Your task to perform on an android device: Go to accessibility settings Image 0: 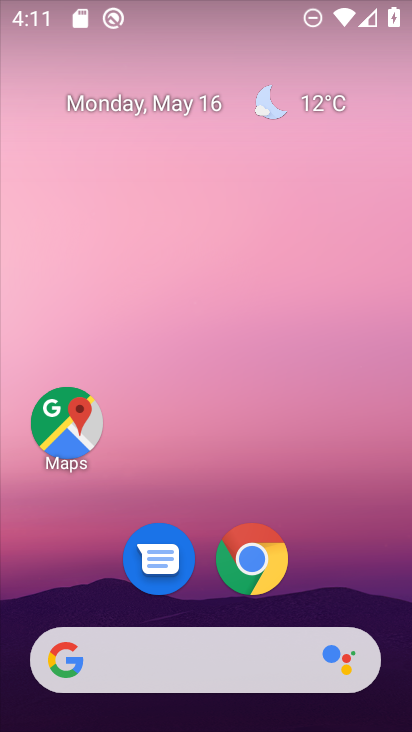
Step 0: drag from (351, 594) to (289, 89)
Your task to perform on an android device: Go to accessibility settings Image 1: 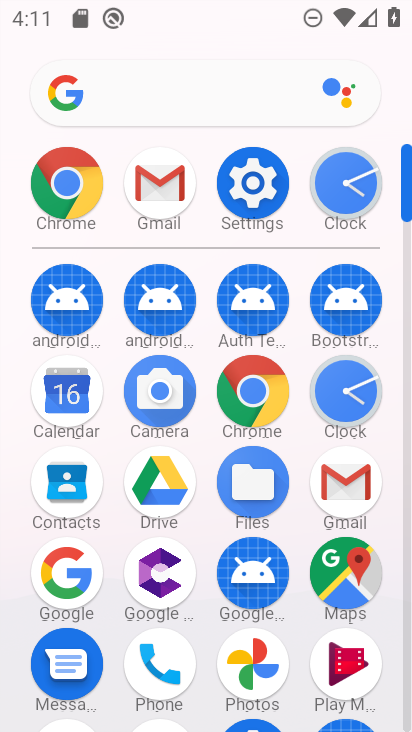
Step 1: click (235, 201)
Your task to perform on an android device: Go to accessibility settings Image 2: 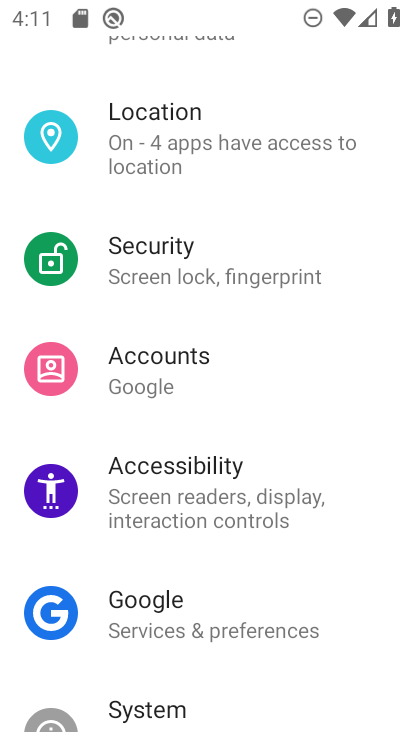
Step 2: click (230, 319)
Your task to perform on an android device: Go to accessibility settings Image 3: 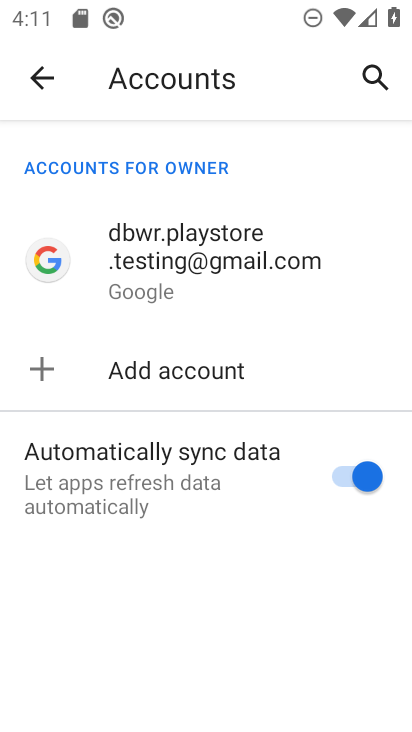
Step 3: click (34, 77)
Your task to perform on an android device: Go to accessibility settings Image 4: 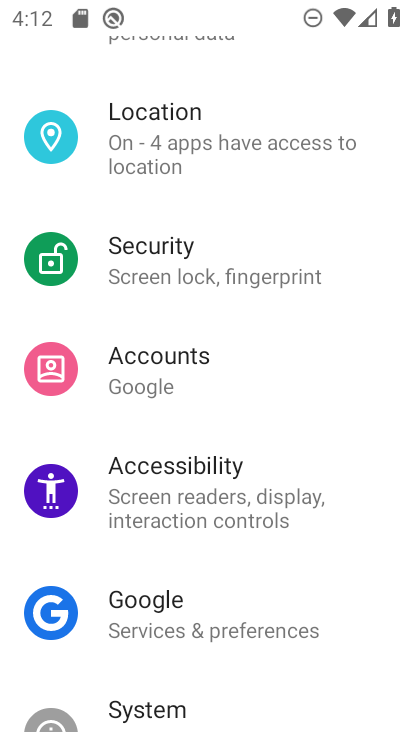
Step 4: click (140, 459)
Your task to perform on an android device: Go to accessibility settings Image 5: 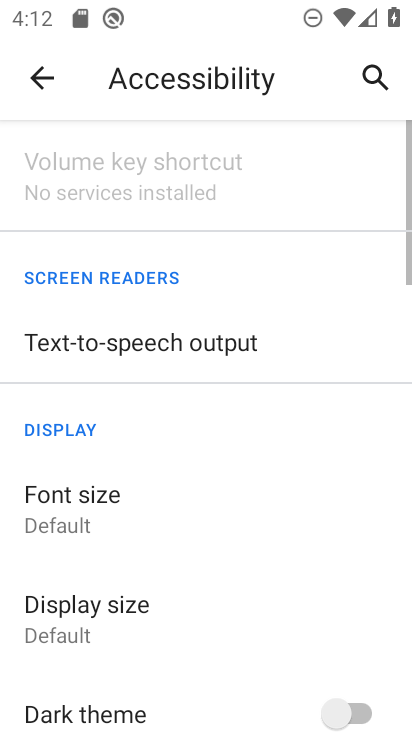
Step 5: task complete